Your task to perform on an android device: turn off picture-in-picture Image 0: 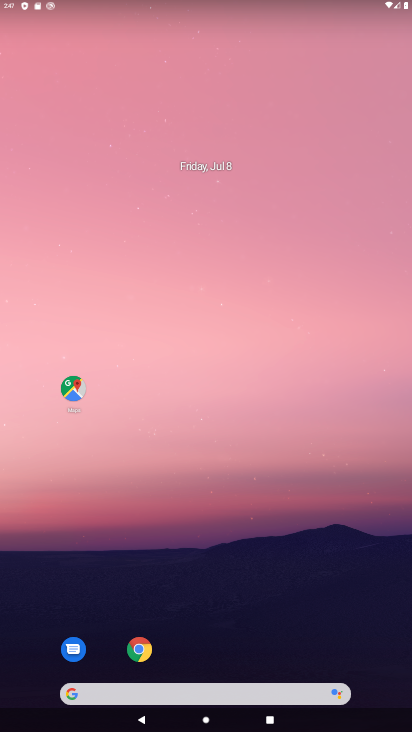
Step 0: drag from (201, 674) to (150, 122)
Your task to perform on an android device: turn off picture-in-picture Image 1: 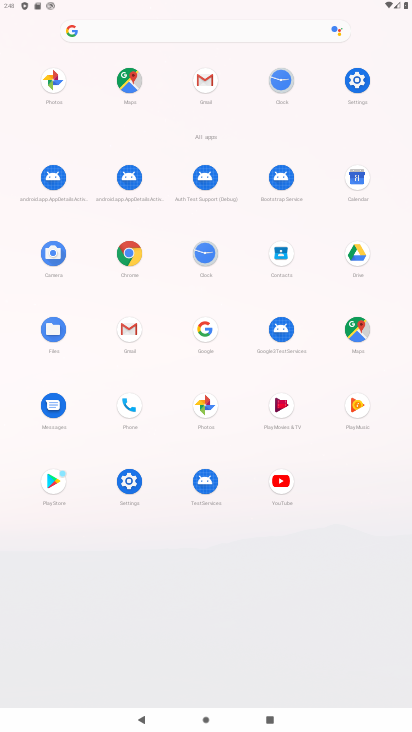
Step 1: click (128, 478)
Your task to perform on an android device: turn off picture-in-picture Image 2: 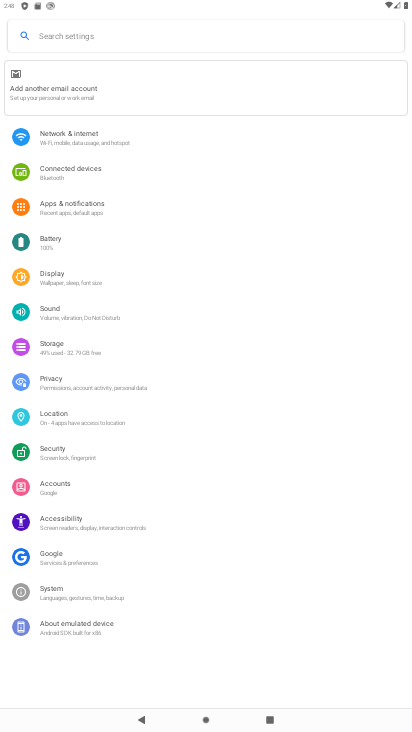
Step 2: click (87, 215)
Your task to perform on an android device: turn off picture-in-picture Image 3: 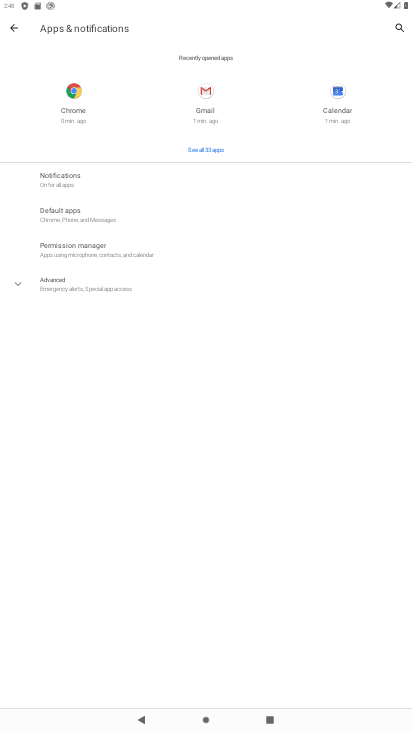
Step 3: click (71, 190)
Your task to perform on an android device: turn off picture-in-picture Image 4: 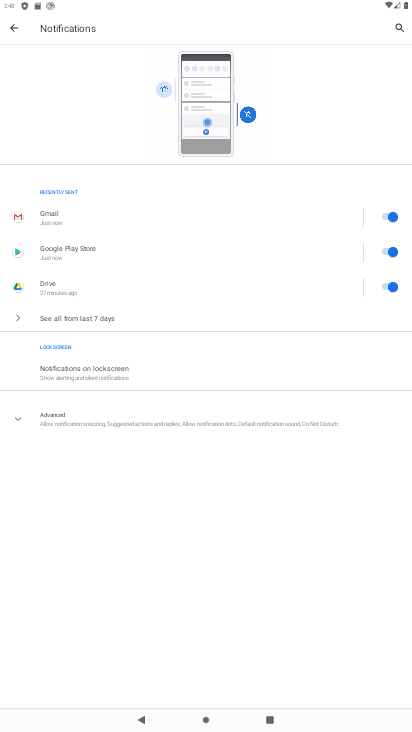
Step 4: click (85, 417)
Your task to perform on an android device: turn off picture-in-picture Image 5: 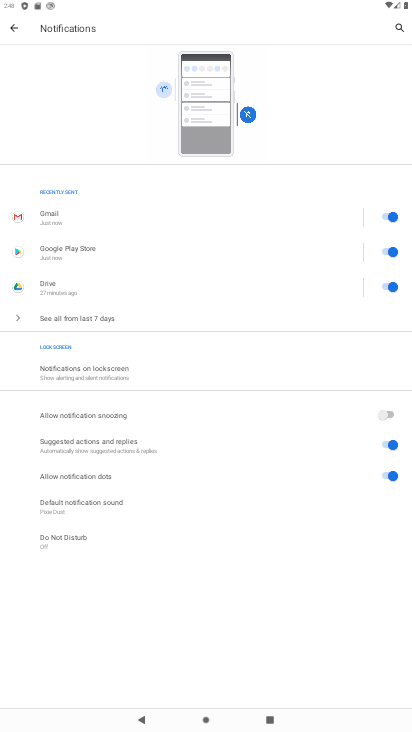
Step 5: task complete